Your task to perform on an android device: set the timer Image 0: 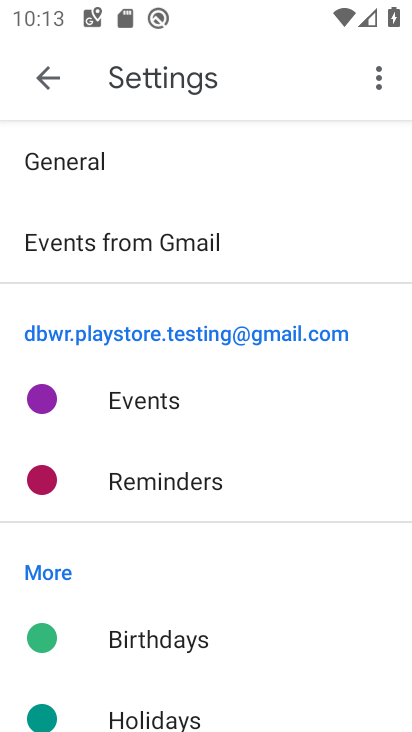
Step 0: press home button
Your task to perform on an android device: set the timer Image 1: 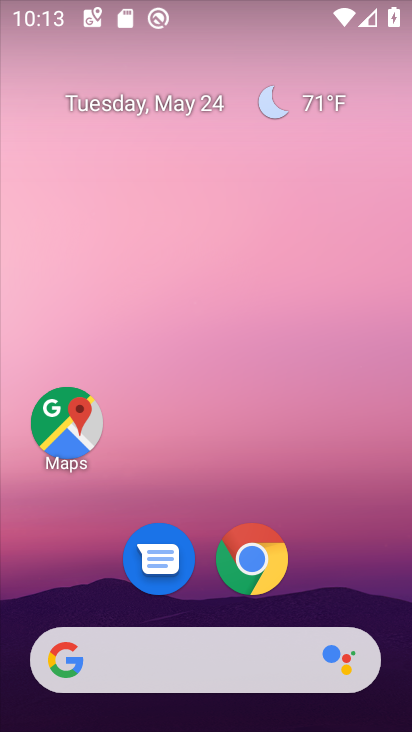
Step 1: drag from (380, 692) to (226, 14)
Your task to perform on an android device: set the timer Image 2: 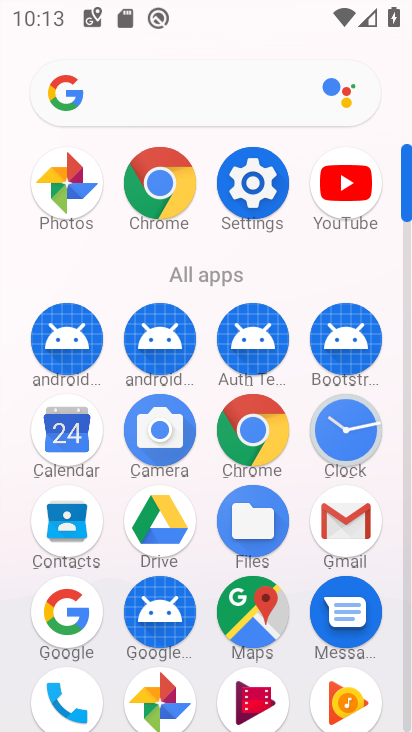
Step 2: click (364, 449)
Your task to perform on an android device: set the timer Image 3: 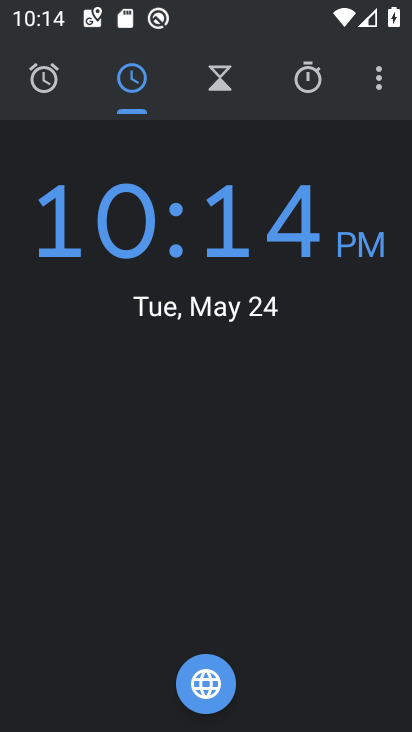
Step 3: click (374, 77)
Your task to perform on an android device: set the timer Image 4: 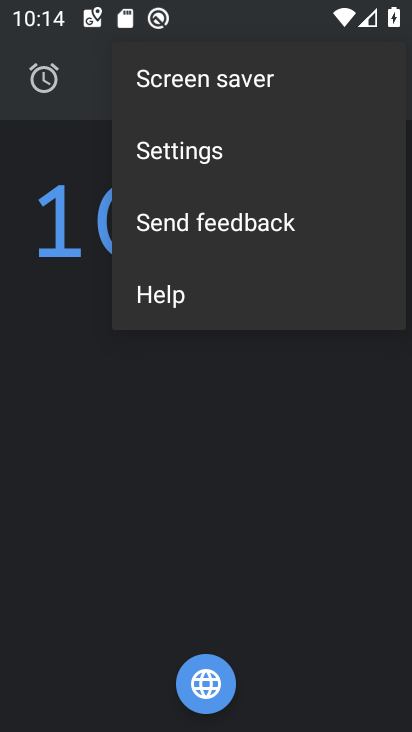
Step 4: click (233, 160)
Your task to perform on an android device: set the timer Image 5: 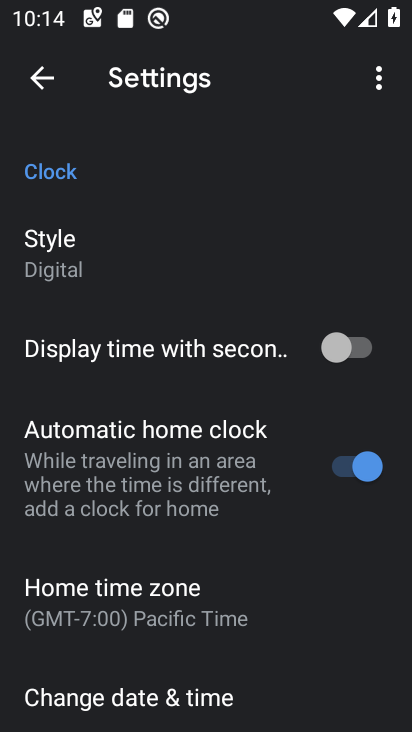
Step 5: click (125, 620)
Your task to perform on an android device: set the timer Image 6: 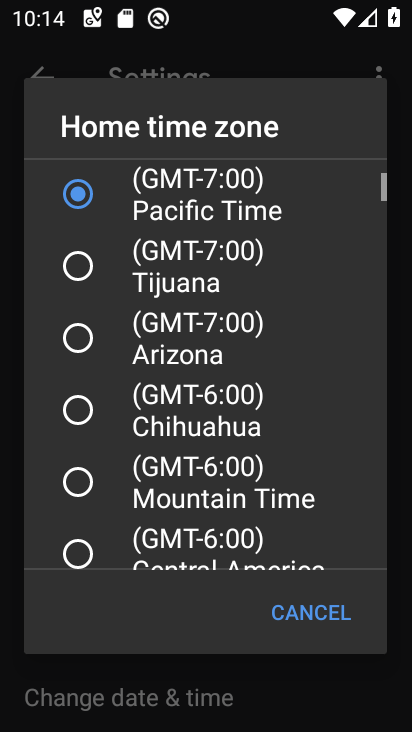
Step 6: click (256, 385)
Your task to perform on an android device: set the timer Image 7: 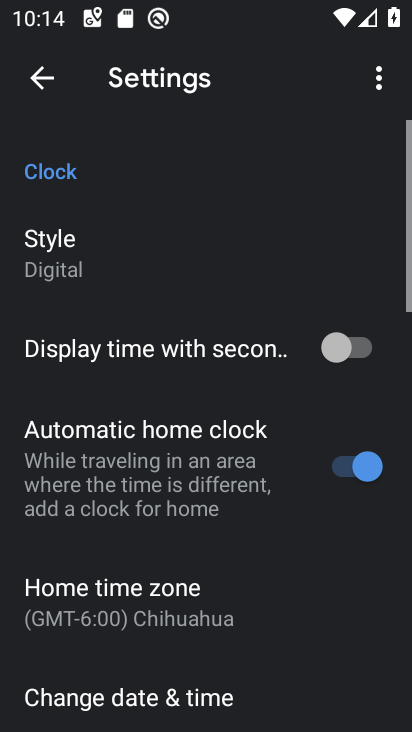
Step 7: task complete